Your task to perform on an android device: Open Android settings Image 0: 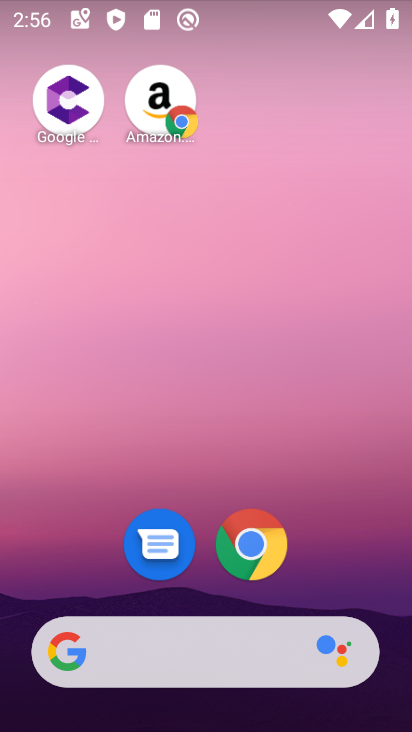
Step 0: drag from (344, 557) to (352, 160)
Your task to perform on an android device: Open Android settings Image 1: 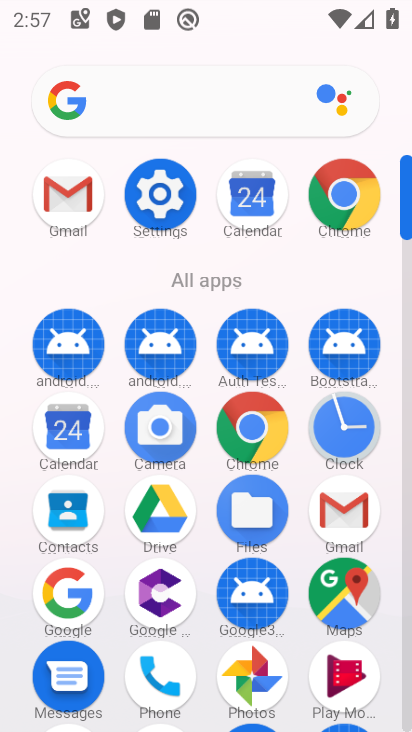
Step 1: click (161, 192)
Your task to perform on an android device: Open Android settings Image 2: 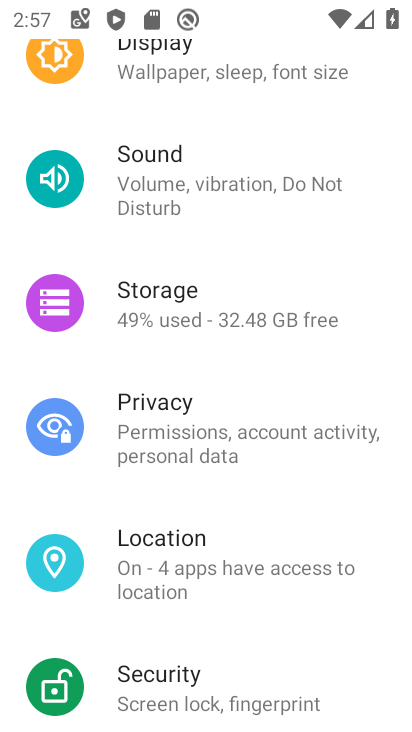
Step 2: task complete